Your task to perform on an android device: Open Yahoo.com Image 0: 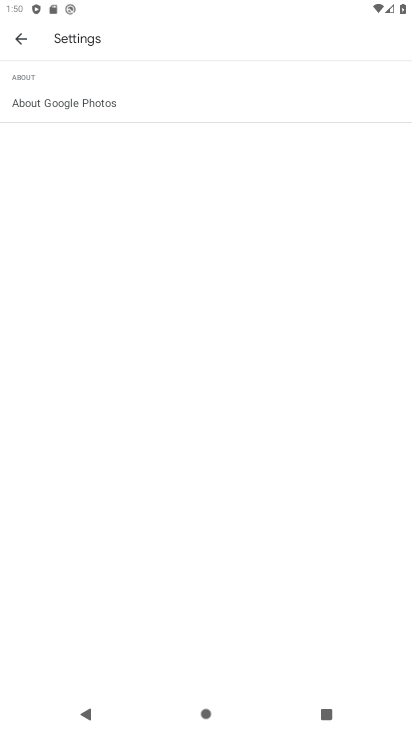
Step 0: press home button
Your task to perform on an android device: Open Yahoo.com Image 1: 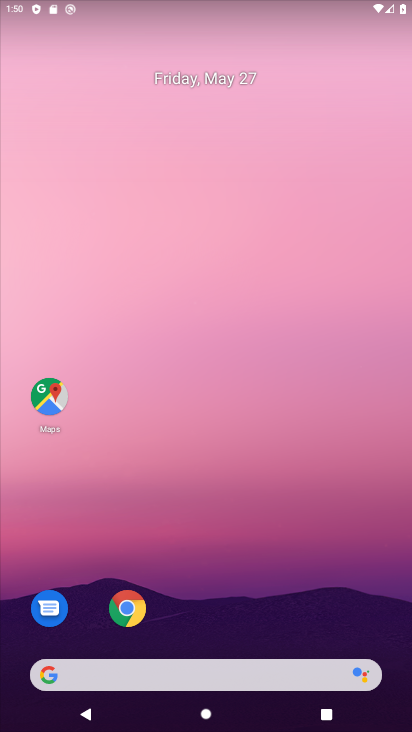
Step 1: drag from (148, 654) to (265, 124)
Your task to perform on an android device: Open Yahoo.com Image 2: 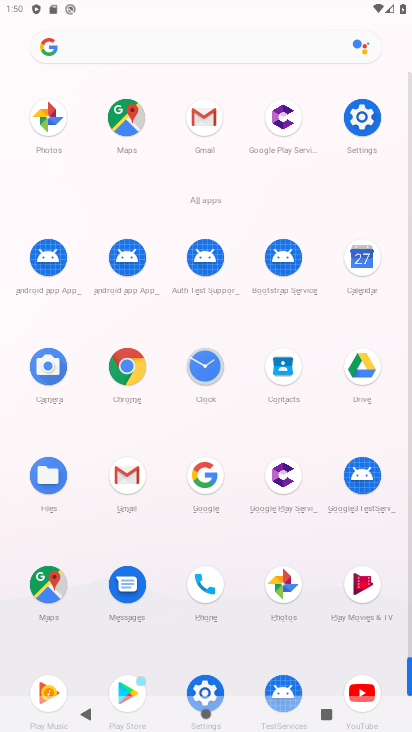
Step 2: click (119, 384)
Your task to perform on an android device: Open Yahoo.com Image 3: 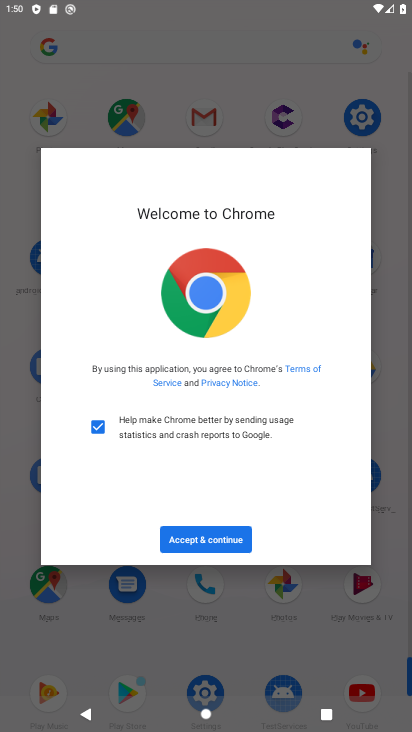
Step 3: click (213, 537)
Your task to perform on an android device: Open Yahoo.com Image 4: 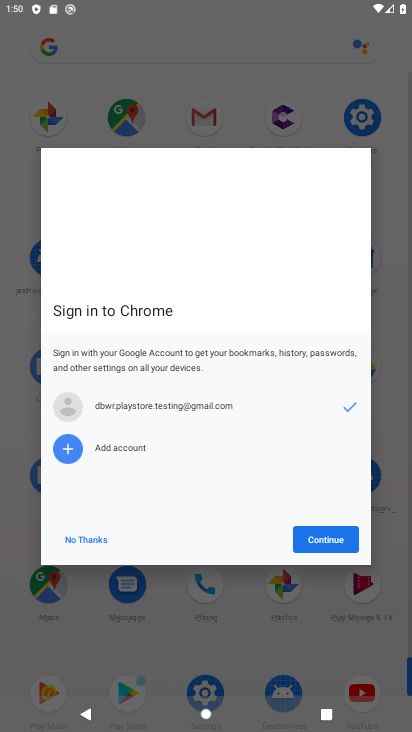
Step 4: click (328, 526)
Your task to perform on an android device: Open Yahoo.com Image 5: 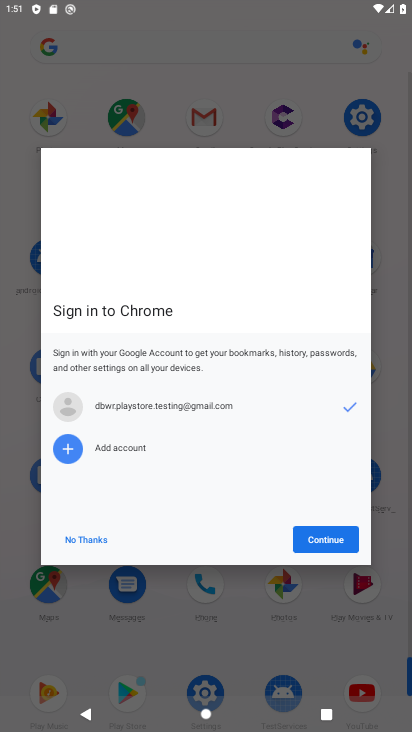
Step 5: click (333, 544)
Your task to perform on an android device: Open Yahoo.com Image 6: 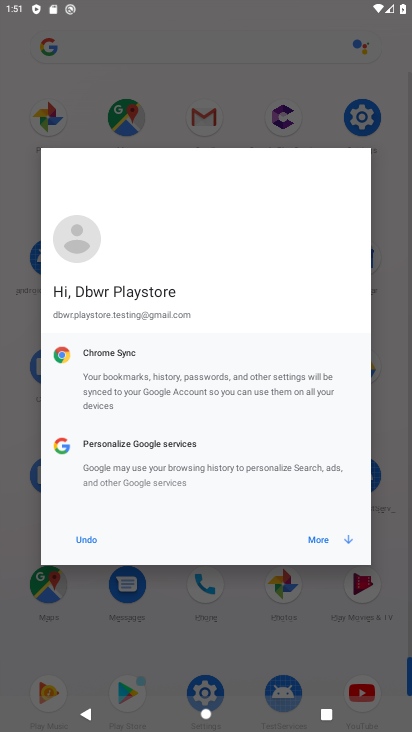
Step 6: click (333, 544)
Your task to perform on an android device: Open Yahoo.com Image 7: 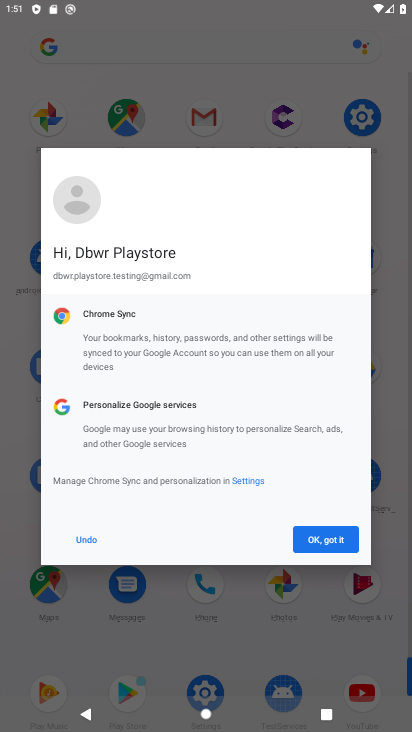
Step 7: click (333, 544)
Your task to perform on an android device: Open Yahoo.com Image 8: 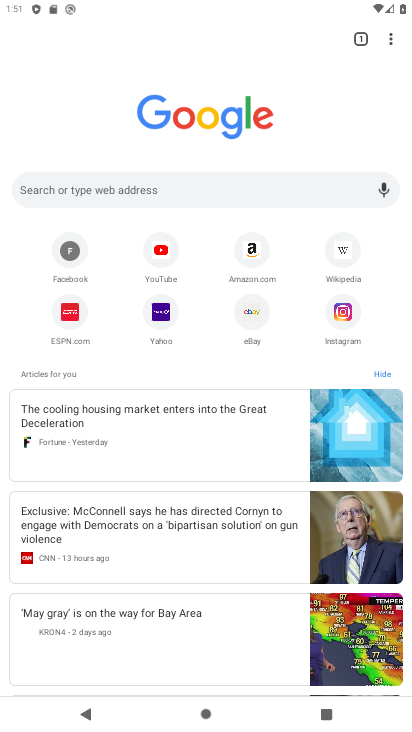
Step 8: click (173, 315)
Your task to perform on an android device: Open Yahoo.com Image 9: 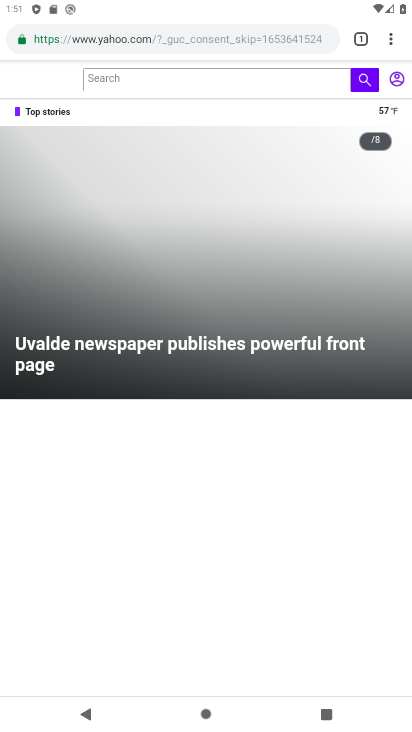
Step 9: task complete